Your task to perform on an android device: Check the news Image 0: 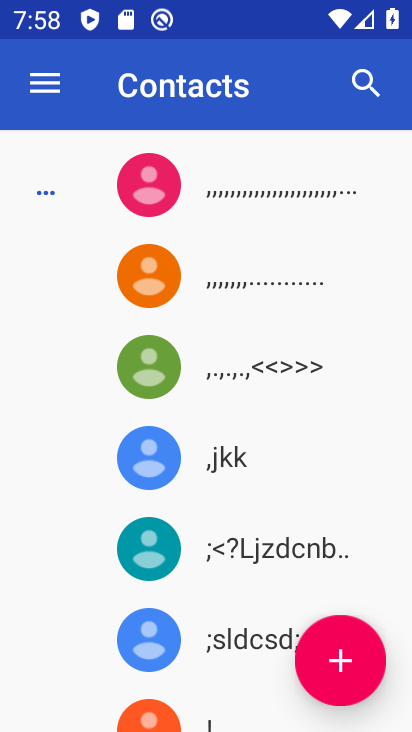
Step 0: press home button
Your task to perform on an android device: Check the news Image 1: 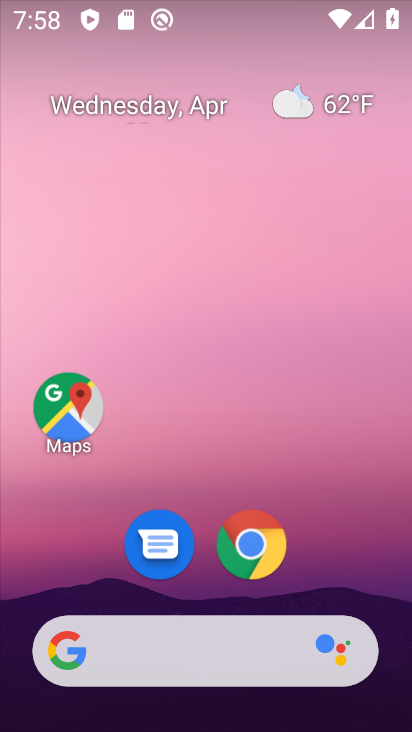
Step 1: drag from (200, 577) to (178, 102)
Your task to perform on an android device: Check the news Image 2: 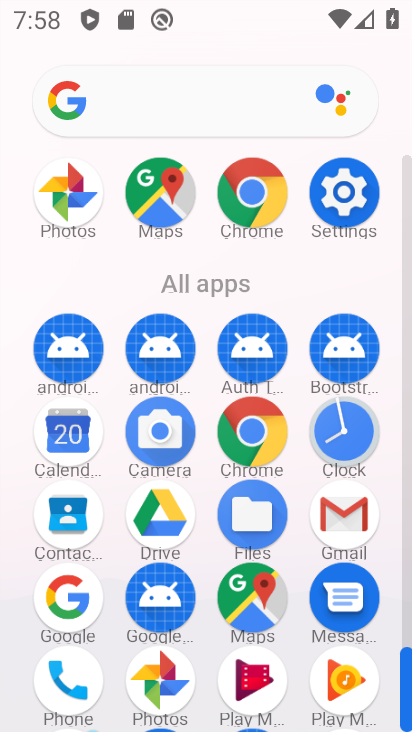
Step 2: click (78, 596)
Your task to perform on an android device: Check the news Image 3: 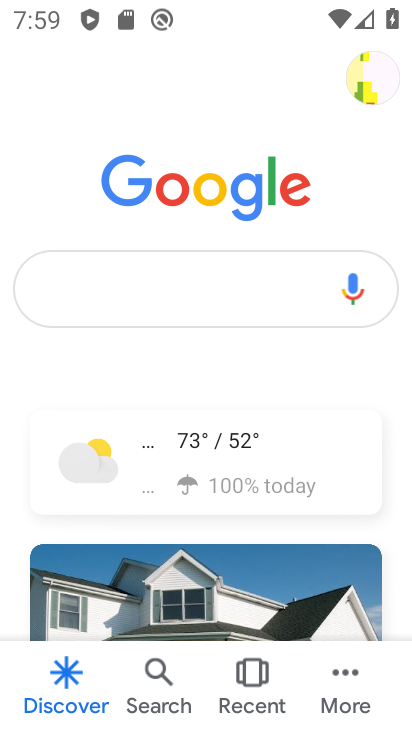
Step 3: drag from (212, 309) to (230, 127)
Your task to perform on an android device: Check the news Image 4: 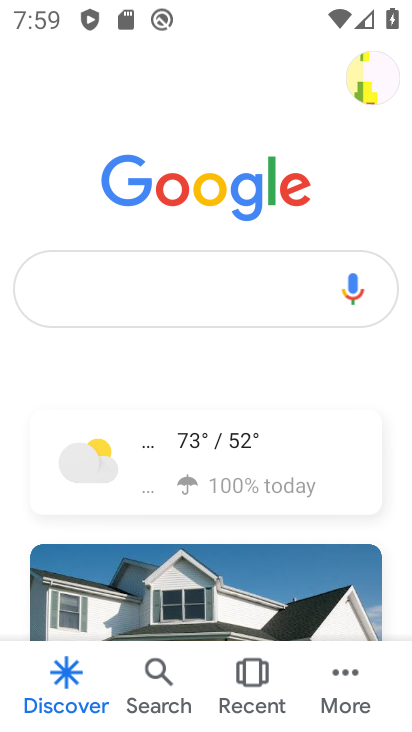
Step 4: drag from (276, 227) to (269, 145)
Your task to perform on an android device: Check the news Image 5: 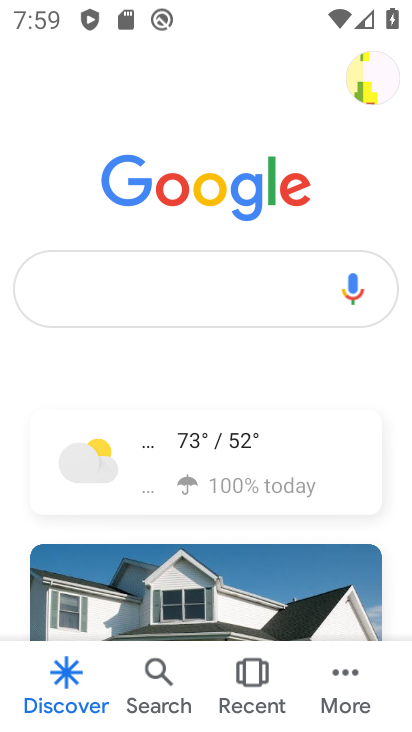
Step 5: click (236, 100)
Your task to perform on an android device: Check the news Image 6: 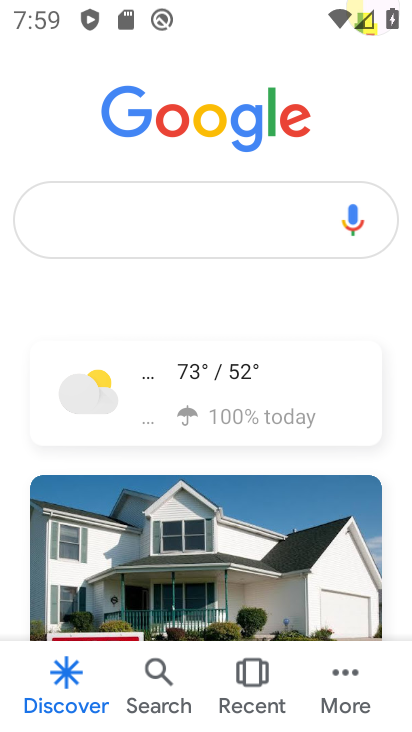
Step 6: drag from (286, 251) to (293, 143)
Your task to perform on an android device: Check the news Image 7: 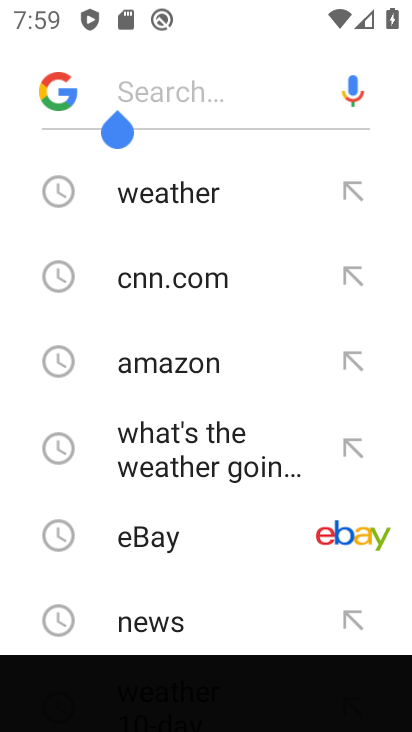
Step 7: drag from (282, 556) to (280, 256)
Your task to perform on an android device: Check the news Image 8: 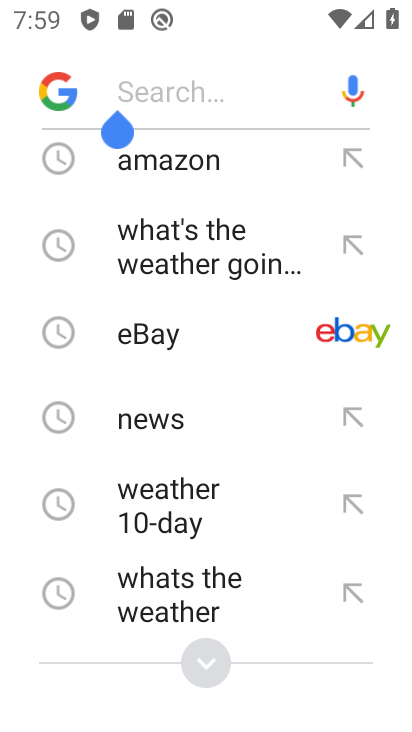
Step 8: click (164, 421)
Your task to perform on an android device: Check the news Image 9: 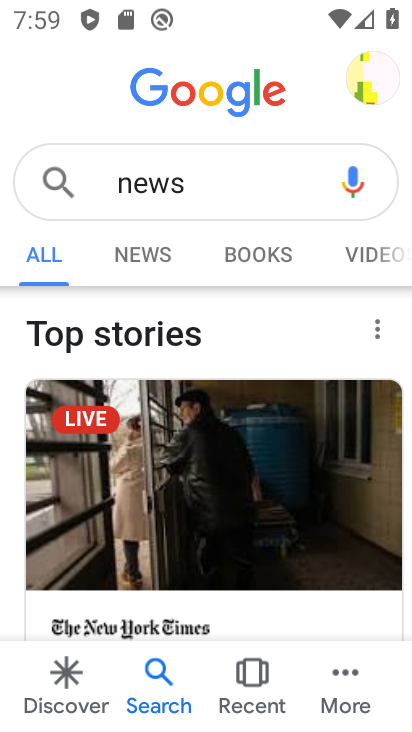
Step 9: drag from (306, 490) to (315, 265)
Your task to perform on an android device: Check the news Image 10: 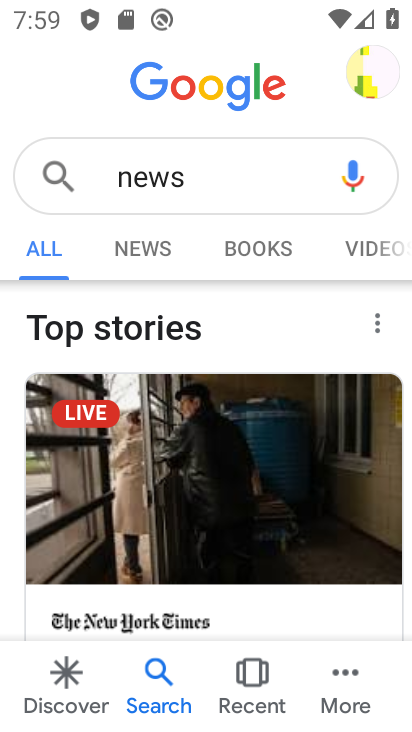
Step 10: click (140, 240)
Your task to perform on an android device: Check the news Image 11: 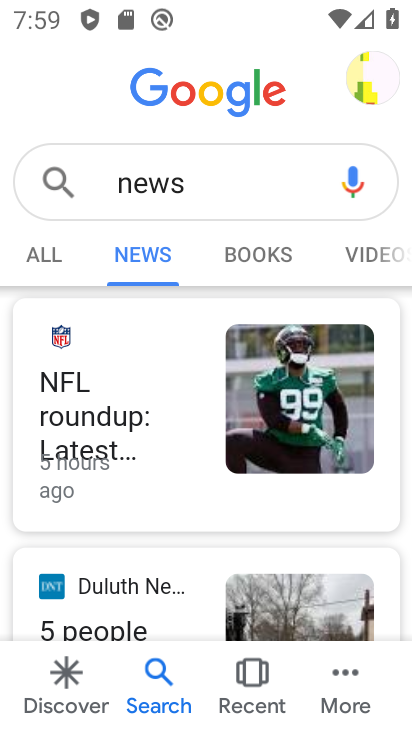
Step 11: task complete